Your task to perform on an android device: Empty the shopping cart on bestbuy. Add "razer deathadder" to the cart on bestbuy Image 0: 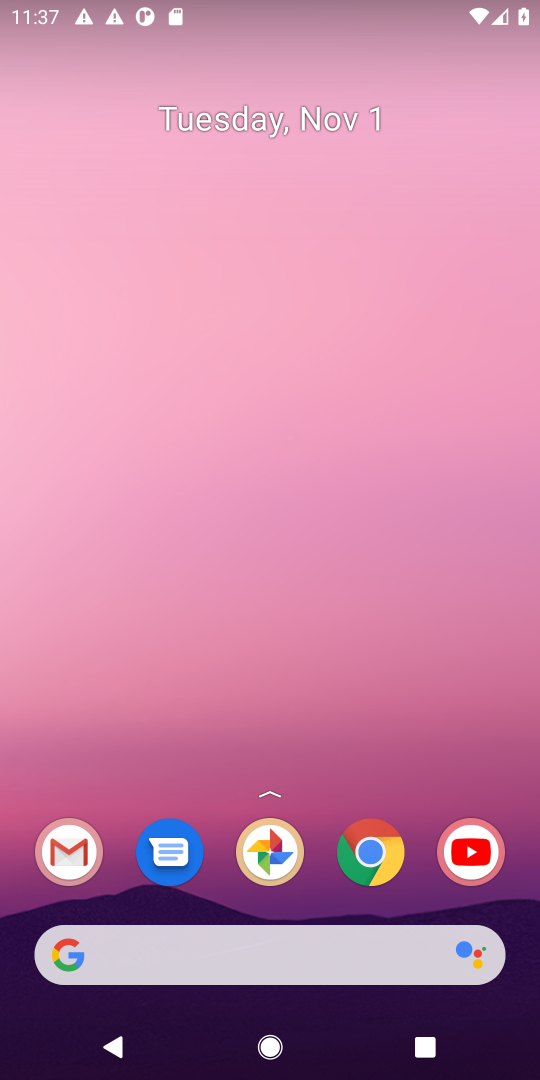
Step 0: press home button
Your task to perform on an android device: Empty the shopping cart on bestbuy. Add "razer deathadder" to the cart on bestbuy Image 1: 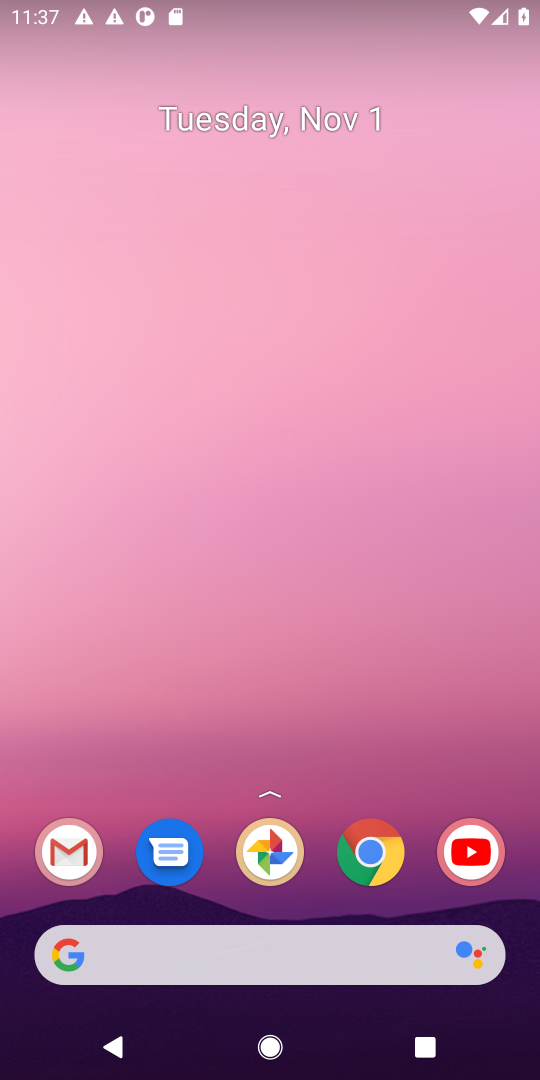
Step 1: click (68, 954)
Your task to perform on an android device: Empty the shopping cart on bestbuy. Add "razer deathadder" to the cart on bestbuy Image 2: 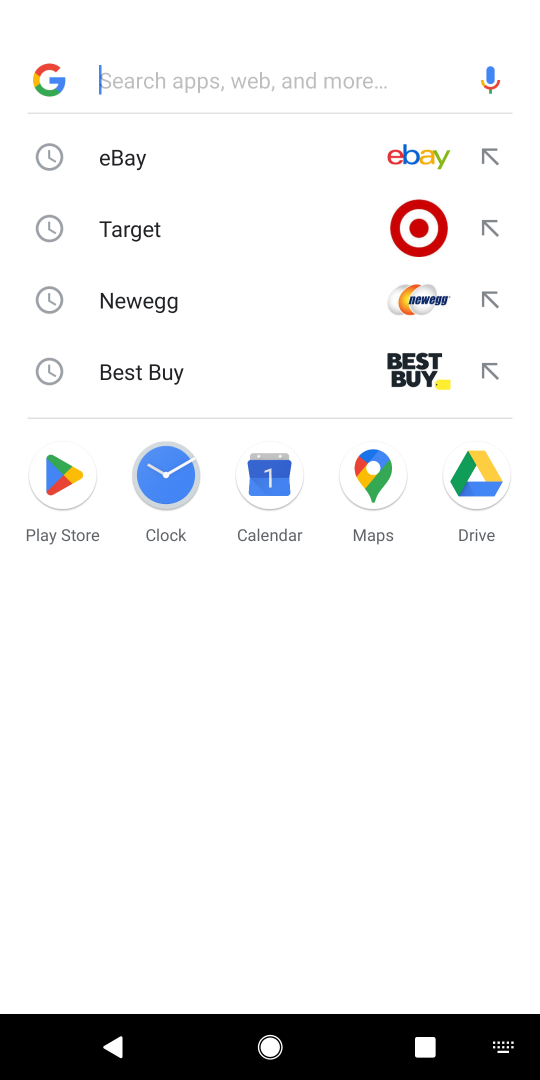
Step 2: type "bestbuy"
Your task to perform on an android device: Empty the shopping cart on bestbuy. Add "razer deathadder" to the cart on bestbuy Image 3: 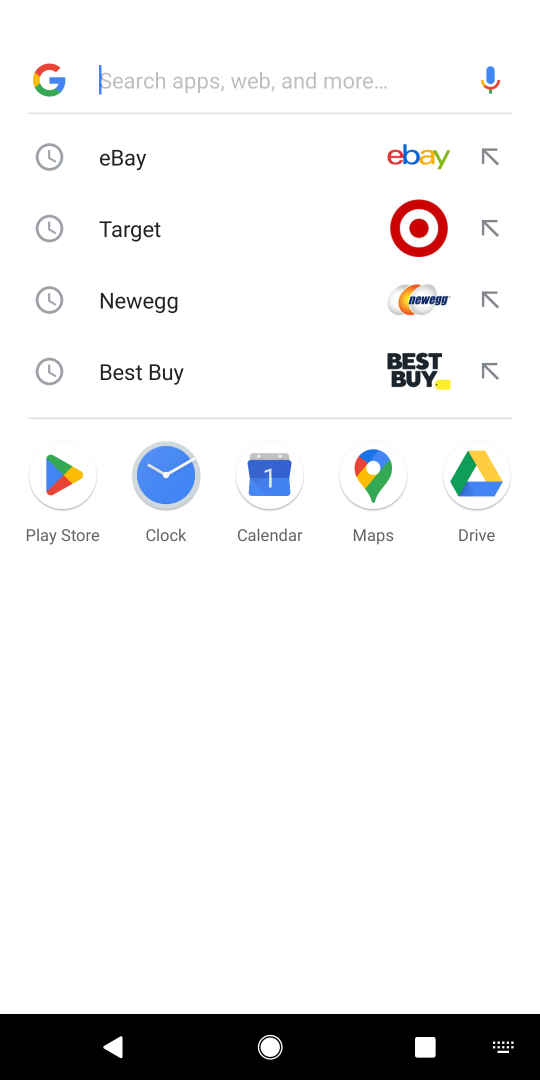
Step 3: click (117, 72)
Your task to perform on an android device: Empty the shopping cart on bestbuy. Add "razer deathadder" to the cart on bestbuy Image 4: 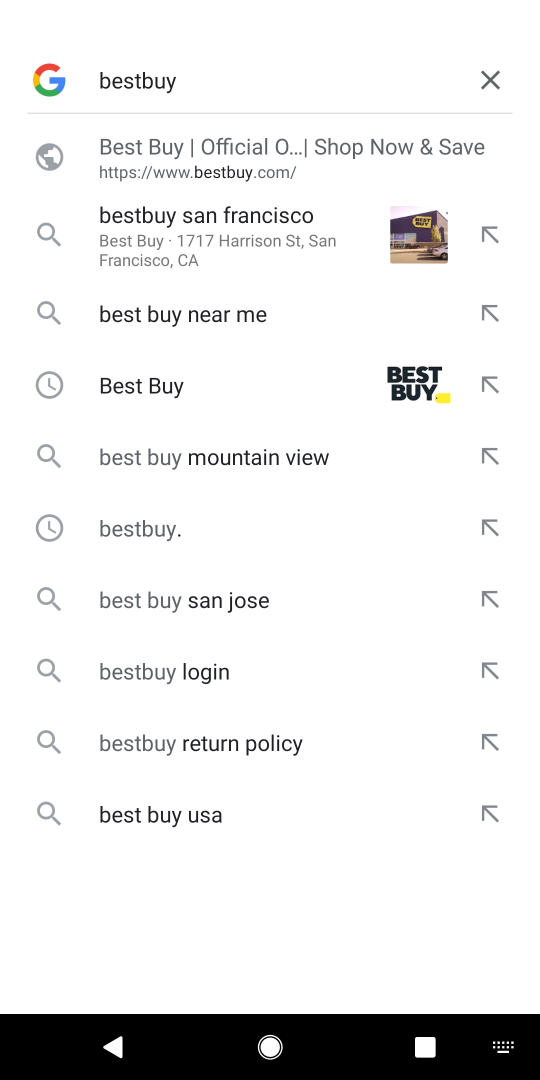
Step 4: click (141, 387)
Your task to perform on an android device: Empty the shopping cart on bestbuy. Add "razer deathadder" to the cart on bestbuy Image 5: 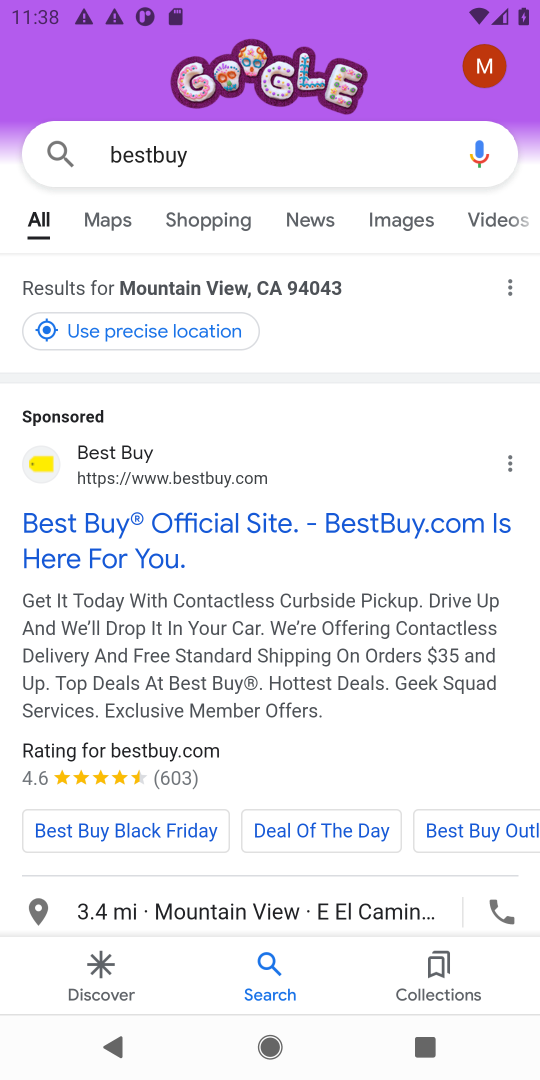
Step 5: drag from (330, 775) to (344, 398)
Your task to perform on an android device: Empty the shopping cart on bestbuy. Add "razer deathadder" to the cart on bestbuy Image 6: 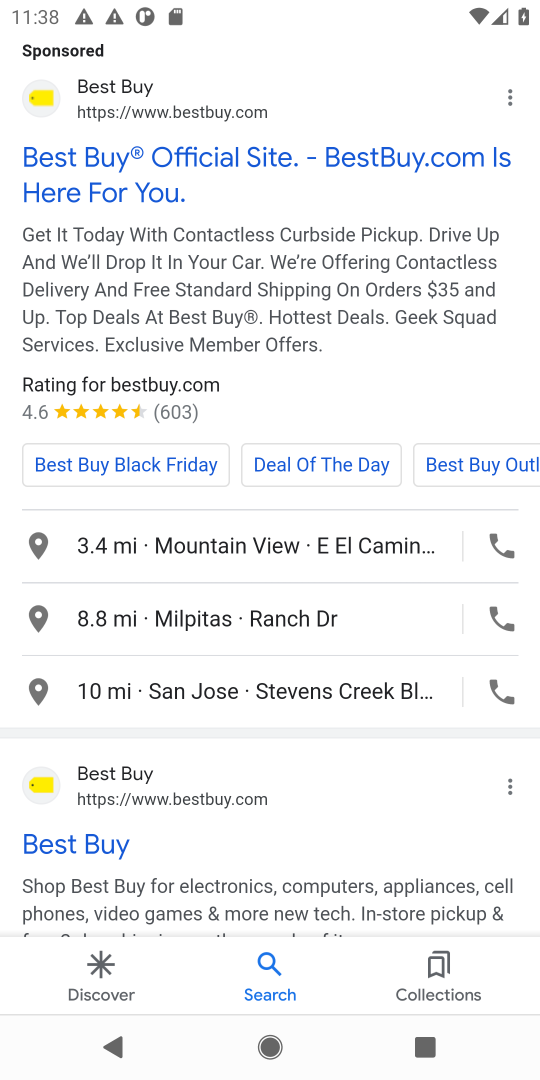
Step 6: click (78, 837)
Your task to perform on an android device: Empty the shopping cart on bestbuy. Add "razer deathadder" to the cart on bestbuy Image 7: 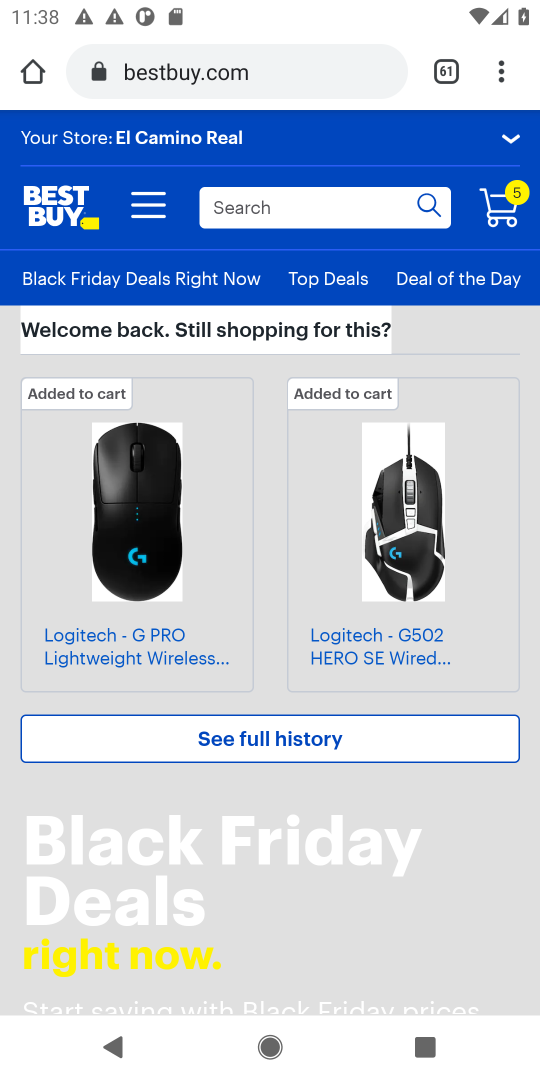
Step 7: click (264, 214)
Your task to perform on an android device: Empty the shopping cart on bestbuy. Add "razer deathadder" to the cart on bestbuy Image 8: 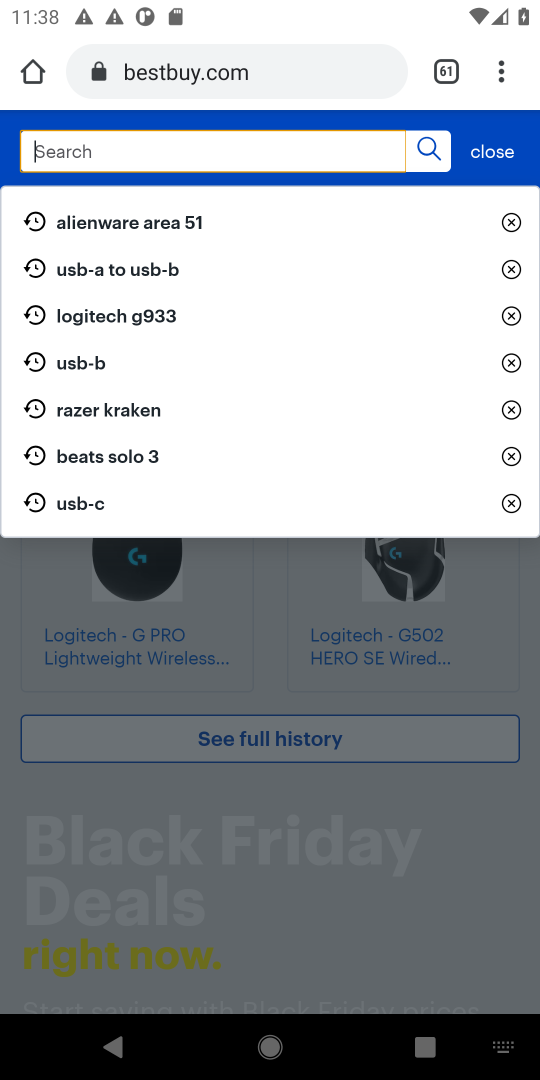
Step 8: type "razer deathadder"
Your task to perform on an android device: Empty the shopping cart on bestbuy. Add "razer deathadder" to the cart on bestbuy Image 9: 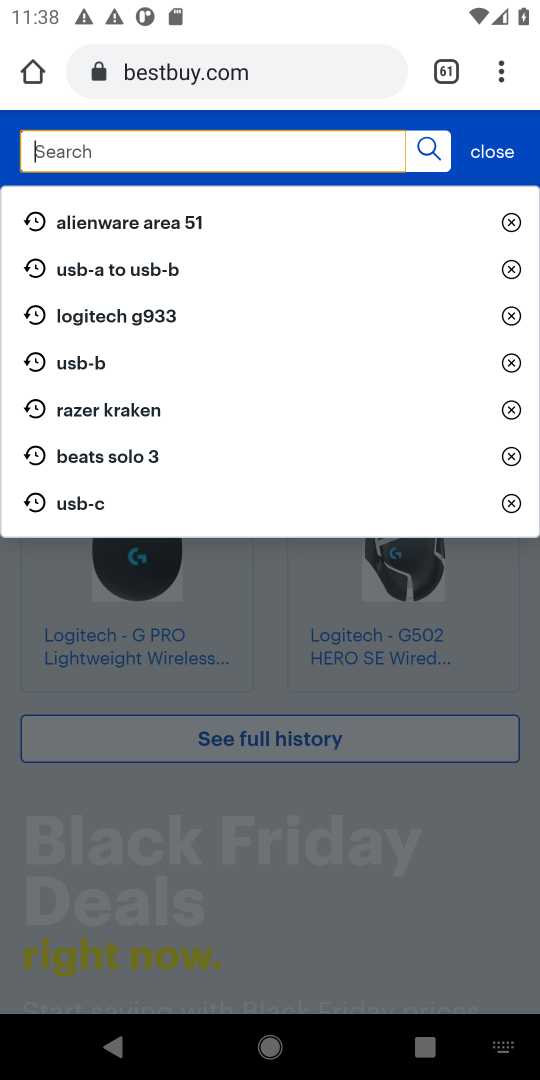
Step 9: click (92, 154)
Your task to perform on an android device: Empty the shopping cart on bestbuy. Add "razer deathadder" to the cart on bestbuy Image 10: 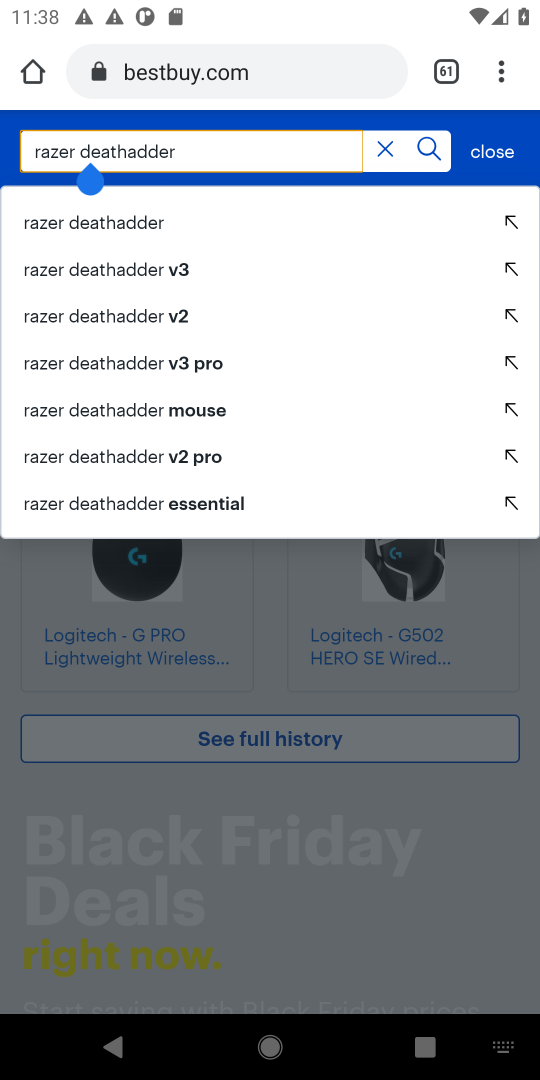
Step 10: press enter
Your task to perform on an android device: Empty the shopping cart on bestbuy. Add "razer deathadder" to the cart on bestbuy Image 11: 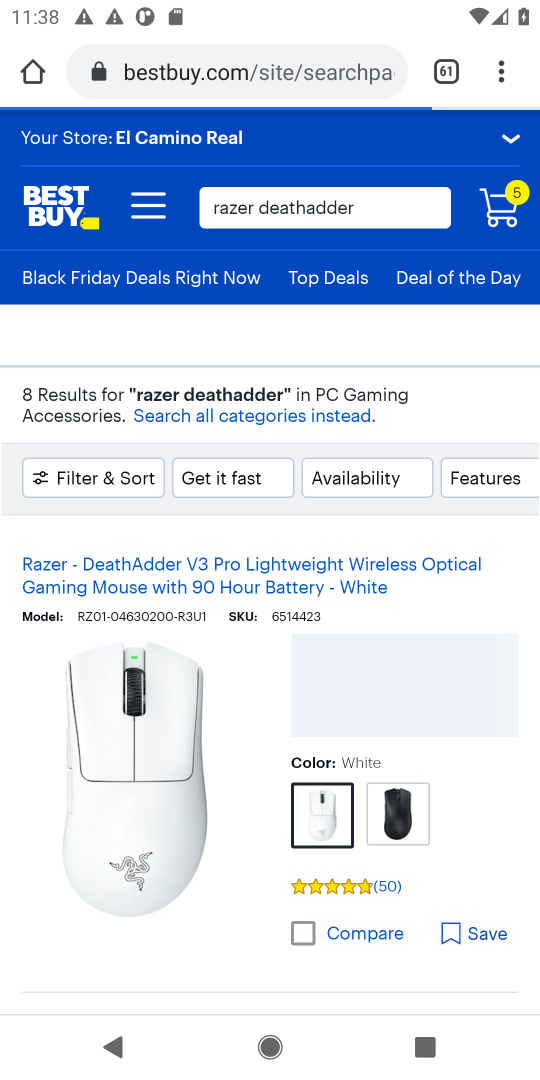
Step 11: drag from (277, 898) to (304, 448)
Your task to perform on an android device: Empty the shopping cart on bestbuy. Add "razer deathadder" to the cart on bestbuy Image 12: 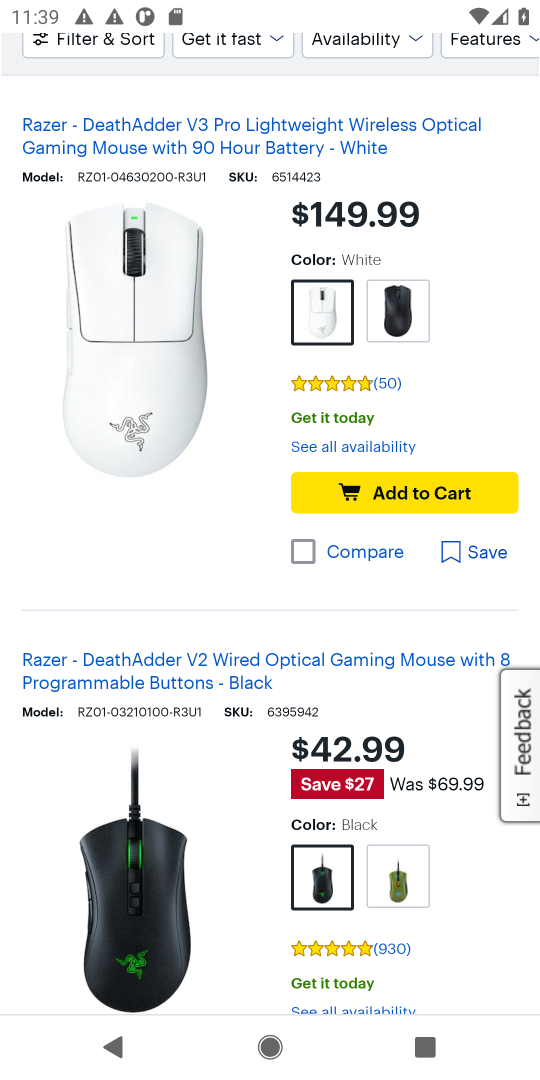
Step 12: click (204, 128)
Your task to perform on an android device: Empty the shopping cart on bestbuy. Add "razer deathadder" to the cart on bestbuy Image 13: 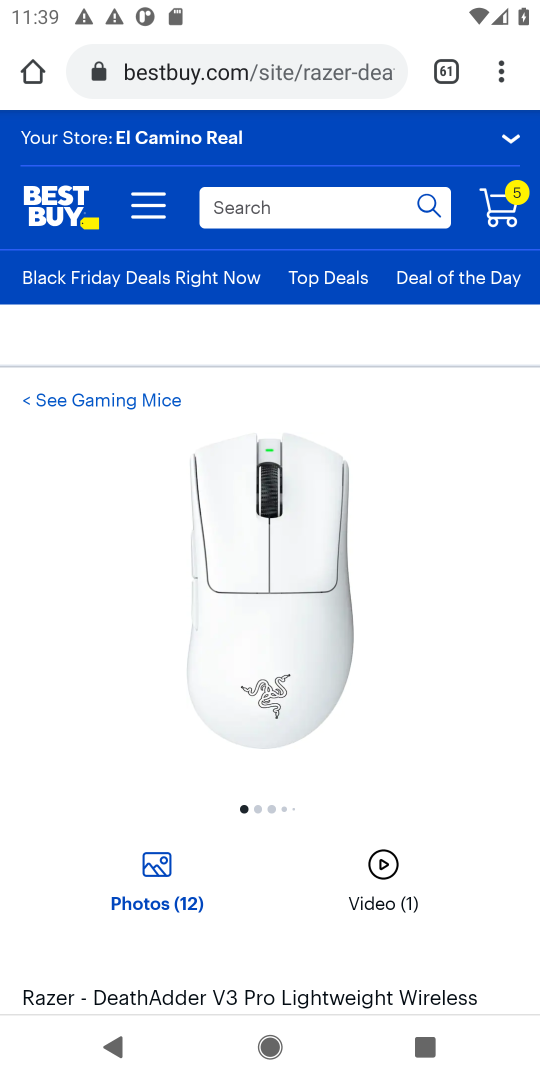
Step 13: drag from (265, 911) to (290, 379)
Your task to perform on an android device: Empty the shopping cart on bestbuy. Add "razer deathadder" to the cart on bestbuy Image 14: 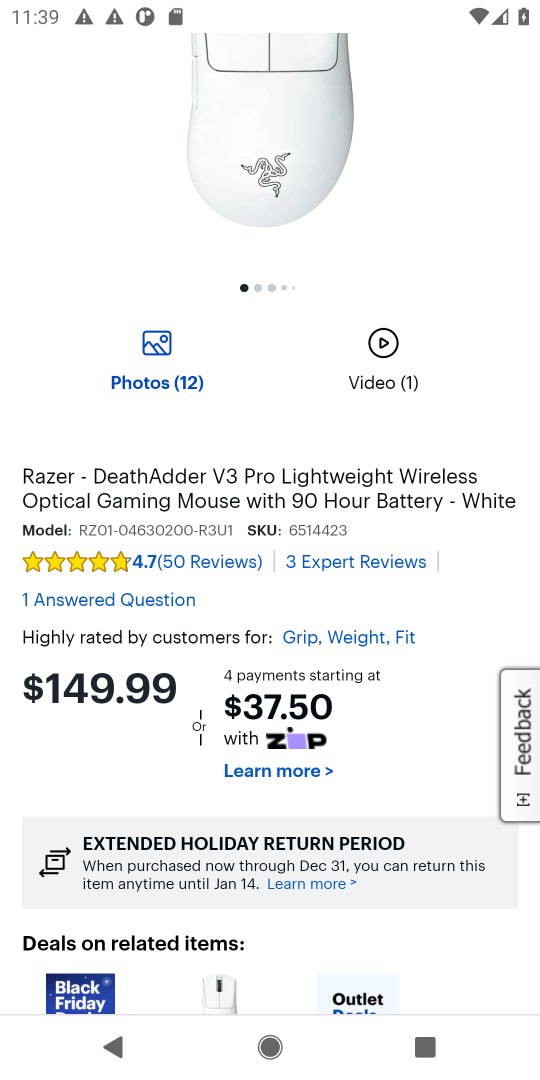
Step 14: drag from (389, 896) to (340, 475)
Your task to perform on an android device: Empty the shopping cart on bestbuy. Add "razer deathadder" to the cart on bestbuy Image 15: 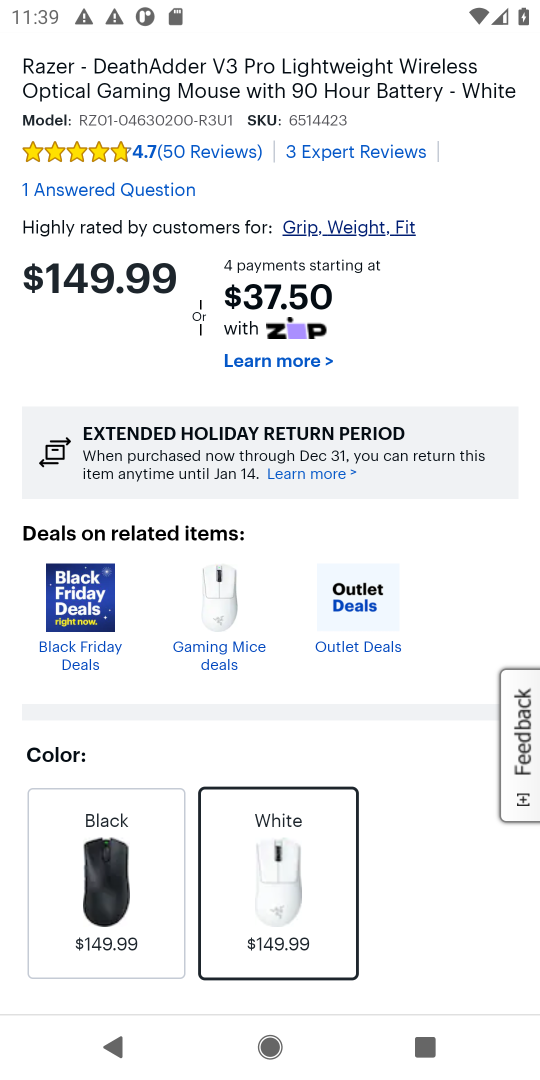
Step 15: drag from (423, 851) to (417, 388)
Your task to perform on an android device: Empty the shopping cart on bestbuy. Add "razer deathadder" to the cart on bestbuy Image 16: 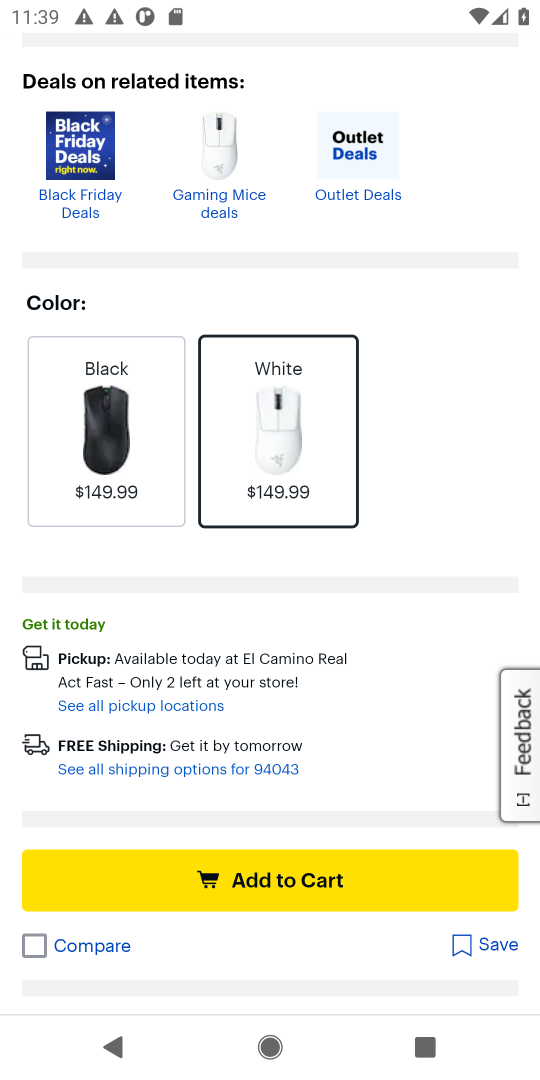
Step 16: click (294, 871)
Your task to perform on an android device: Empty the shopping cart on bestbuy. Add "razer deathadder" to the cart on bestbuy Image 17: 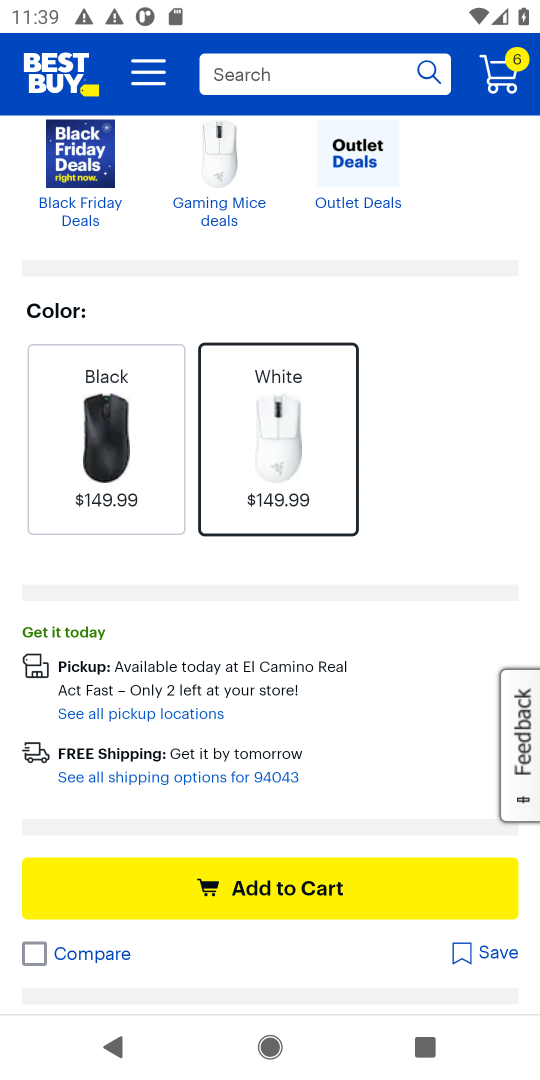
Step 17: click (507, 71)
Your task to perform on an android device: Empty the shopping cart on bestbuy. Add "razer deathadder" to the cart on bestbuy Image 18: 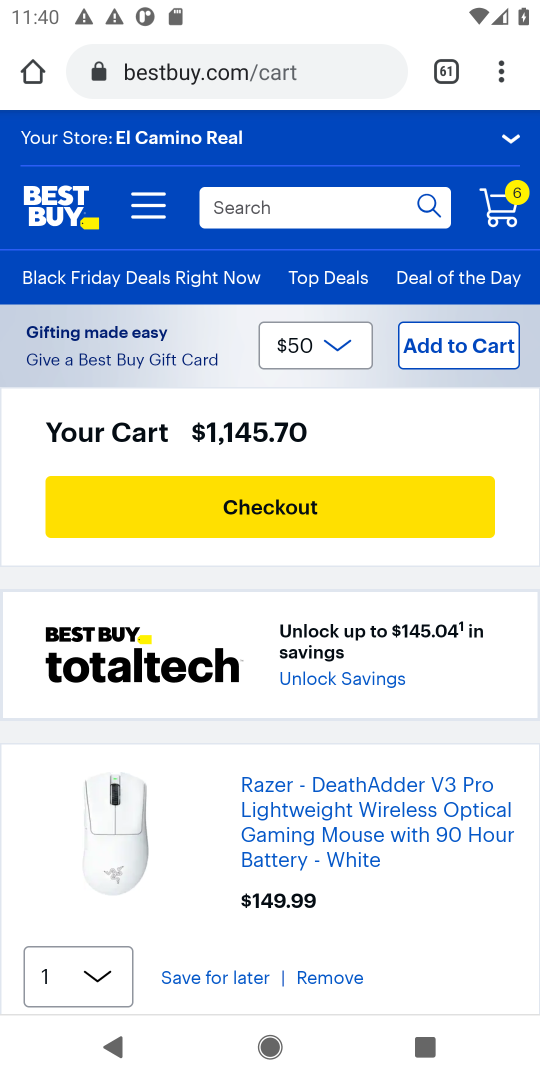
Step 18: drag from (193, 887) to (183, 407)
Your task to perform on an android device: Empty the shopping cart on bestbuy. Add "razer deathadder" to the cart on bestbuy Image 19: 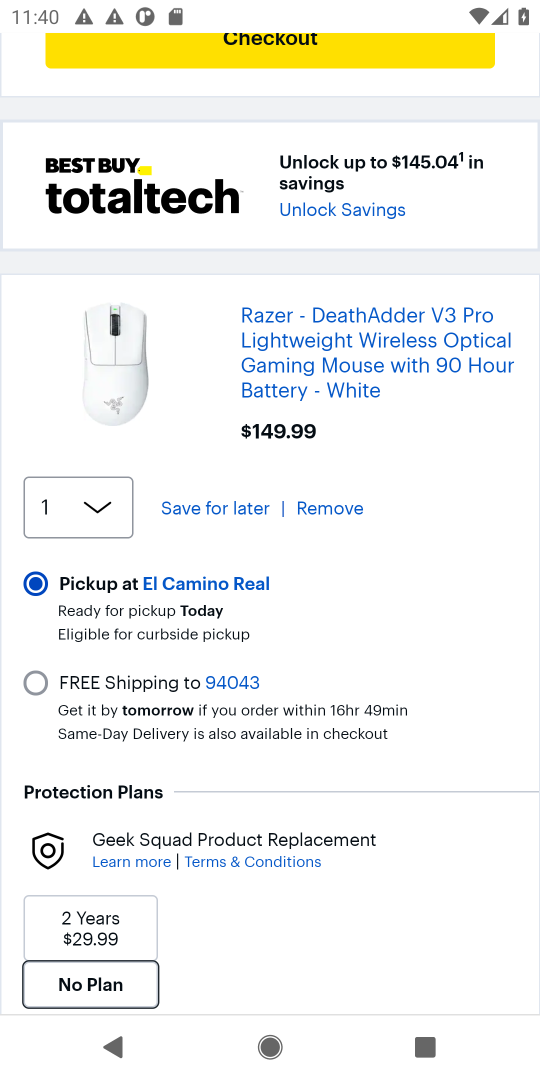
Step 19: drag from (380, 775) to (362, 376)
Your task to perform on an android device: Empty the shopping cart on bestbuy. Add "razer deathadder" to the cart on bestbuy Image 20: 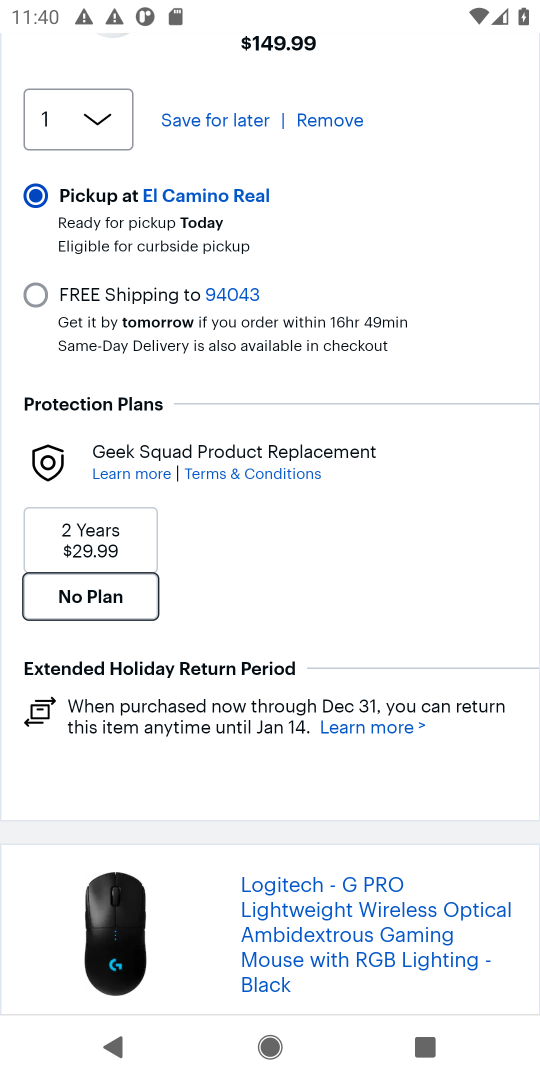
Step 20: drag from (306, 828) to (302, 329)
Your task to perform on an android device: Empty the shopping cart on bestbuy. Add "razer deathadder" to the cart on bestbuy Image 21: 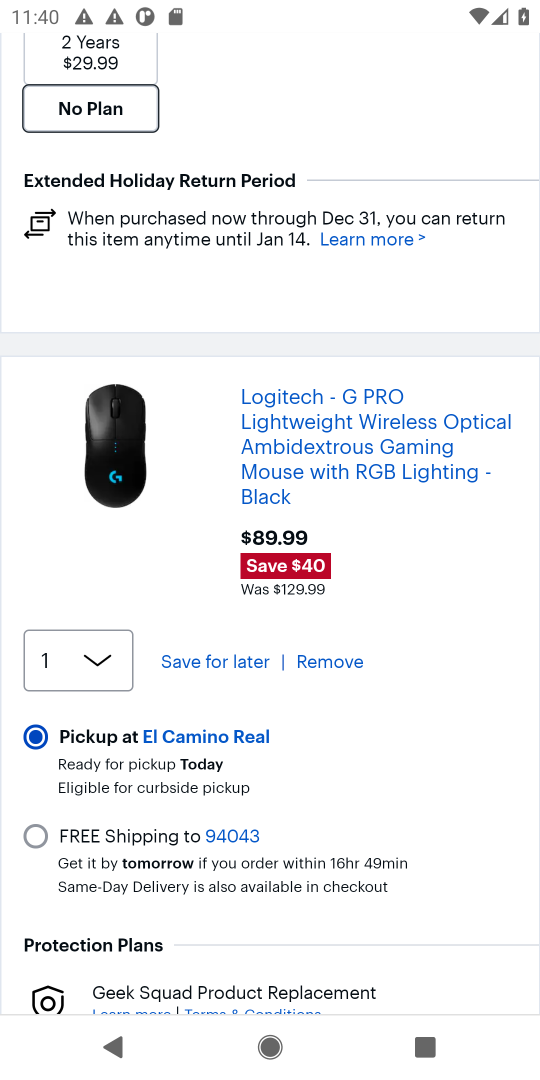
Step 21: click (320, 665)
Your task to perform on an android device: Empty the shopping cart on bestbuy. Add "razer deathadder" to the cart on bestbuy Image 22: 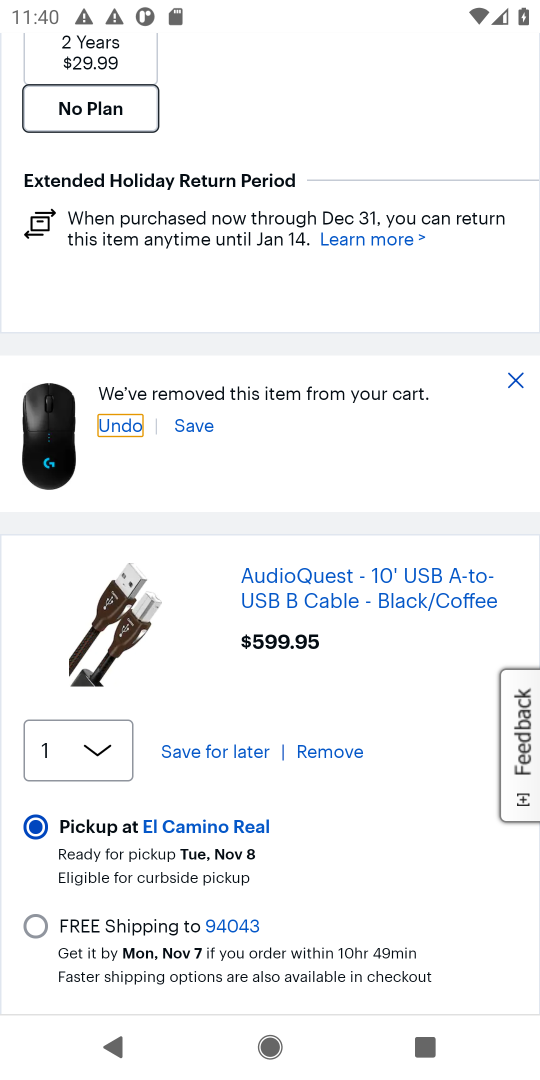
Step 22: click (345, 750)
Your task to perform on an android device: Empty the shopping cart on bestbuy. Add "razer deathadder" to the cart on bestbuy Image 23: 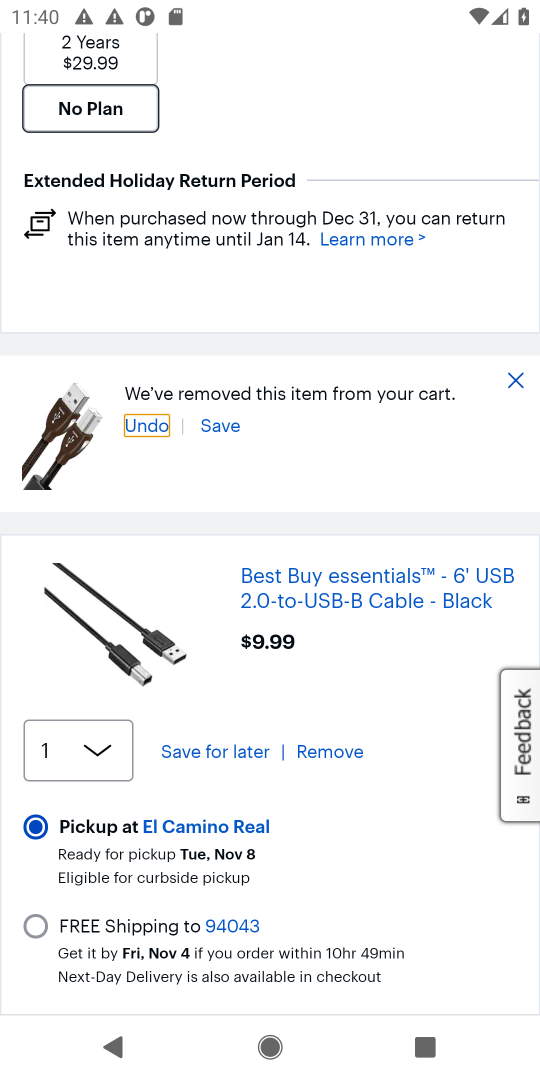
Step 23: click (336, 749)
Your task to perform on an android device: Empty the shopping cart on bestbuy. Add "razer deathadder" to the cart on bestbuy Image 24: 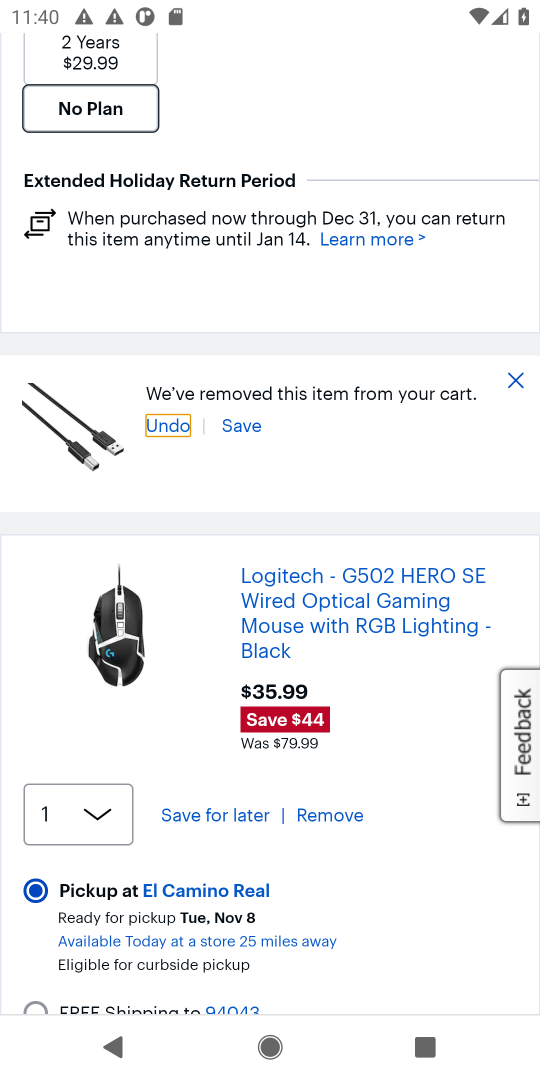
Step 24: click (315, 815)
Your task to perform on an android device: Empty the shopping cart on bestbuy. Add "razer deathadder" to the cart on bestbuy Image 25: 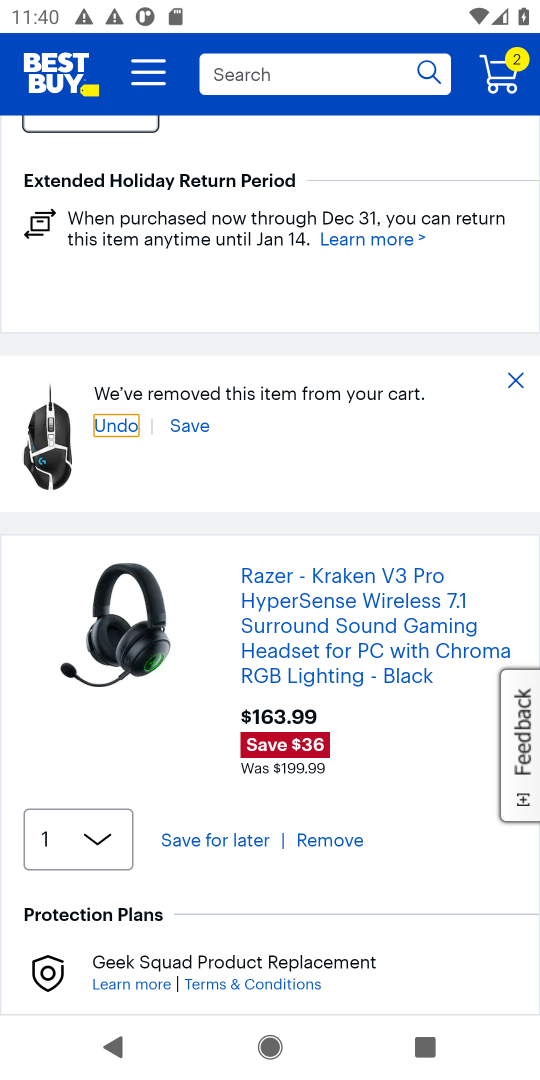
Step 25: click (333, 838)
Your task to perform on an android device: Empty the shopping cart on bestbuy. Add "razer deathadder" to the cart on bestbuy Image 26: 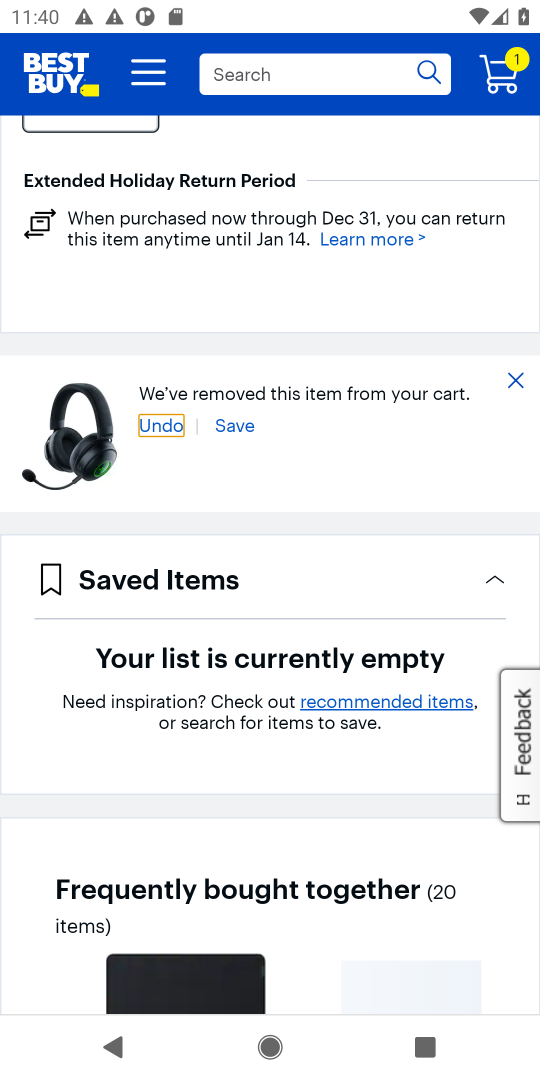
Step 26: task complete